Your task to perform on an android device: What is the recent news? Image 0: 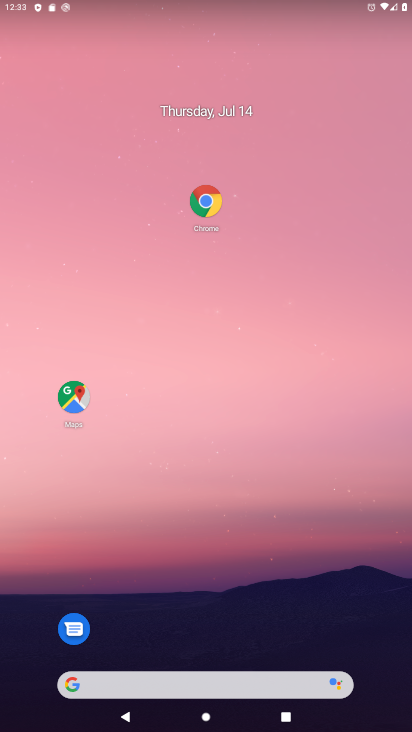
Step 0: click (135, 666)
Your task to perform on an android device: What is the recent news? Image 1: 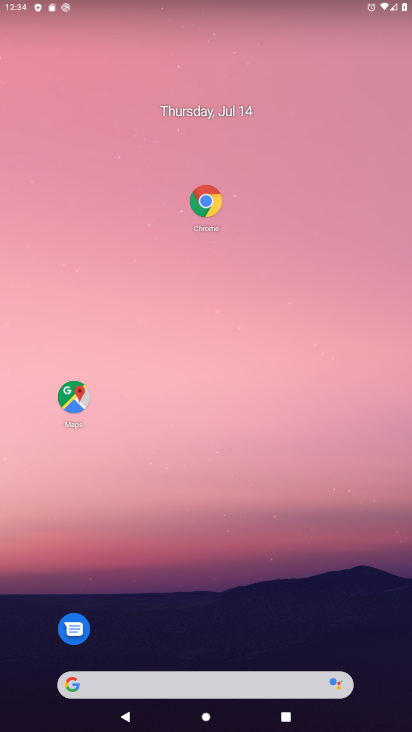
Step 1: click (223, 680)
Your task to perform on an android device: What is the recent news? Image 2: 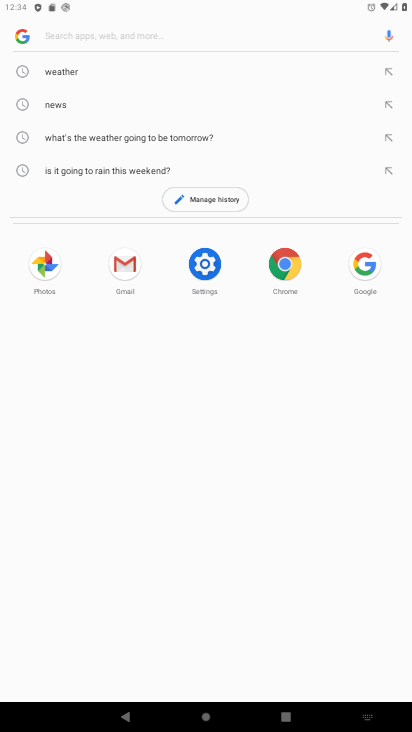
Step 2: click (42, 100)
Your task to perform on an android device: What is the recent news? Image 3: 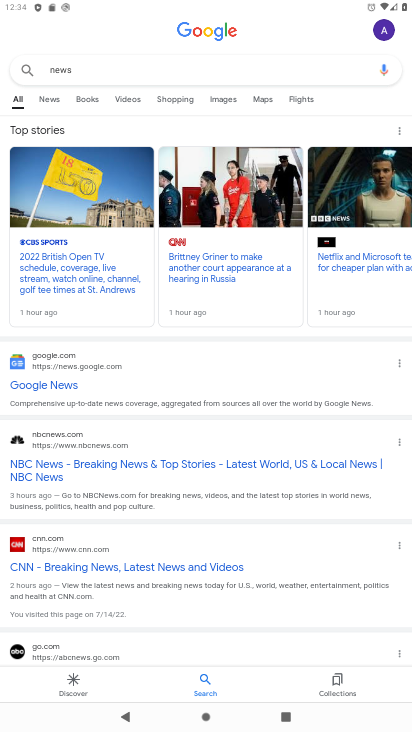
Step 3: click (45, 94)
Your task to perform on an android device: What is the recent news? Image 4: 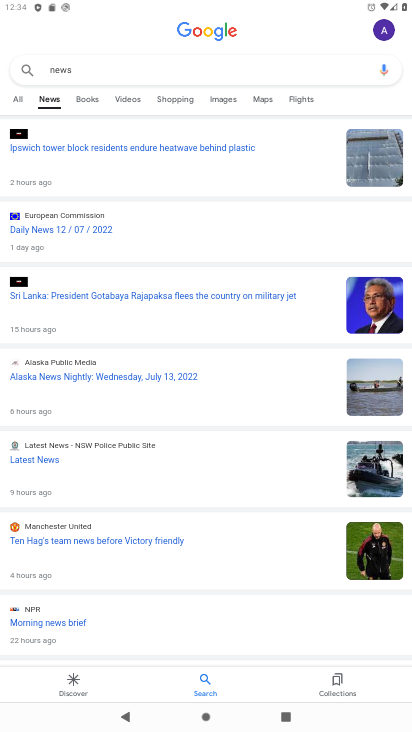
Step 4: task complete